Your task to perform on an android device: move an email to a new category in the gmail app Image 0: 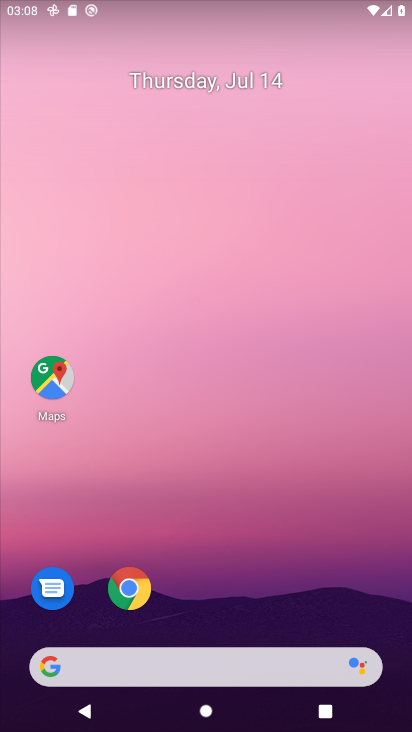
Step 0: drag from (269, 584) to (155, 118)
Your task to perform on an android device: move an email to a new category in the gmail app Image 1: 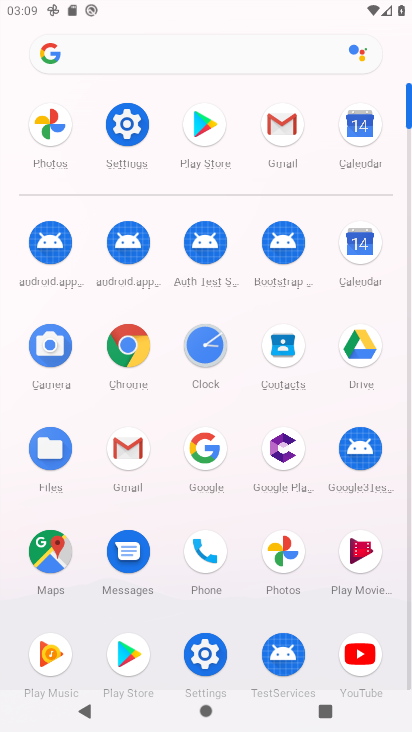
Step 1: click (281, 129)
Your task to perform on an android device: move an email to a new category in the gmail app Image 2: 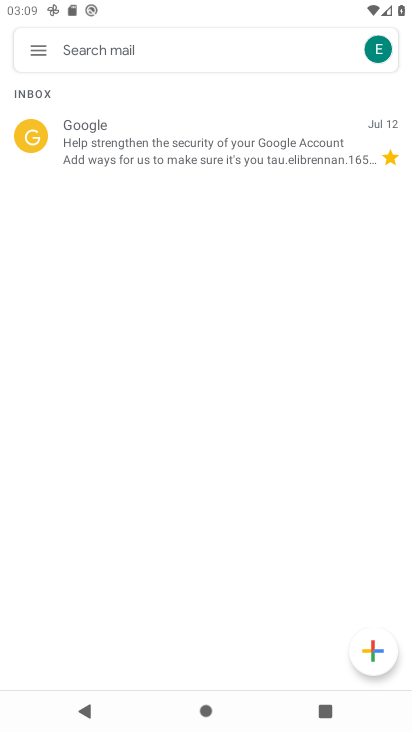
Step 2: click (170, 139)
Your task to perform on an android device: move an email to a new category in the gmail app Image 3: 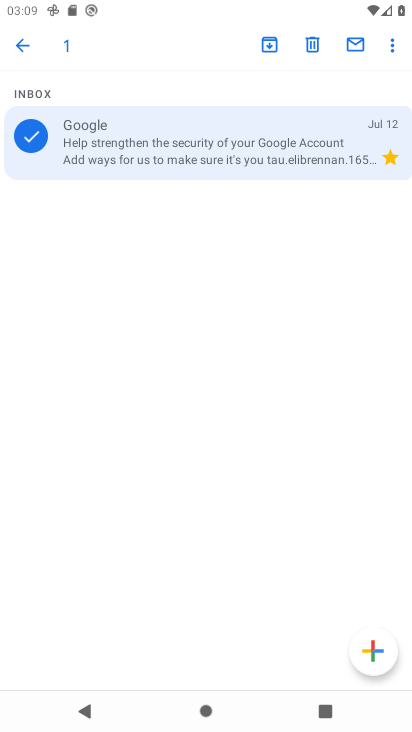
Step 3: click (400, 44)
Your task to perform on an android device: move an email to a new category in the gmail app Image 4: 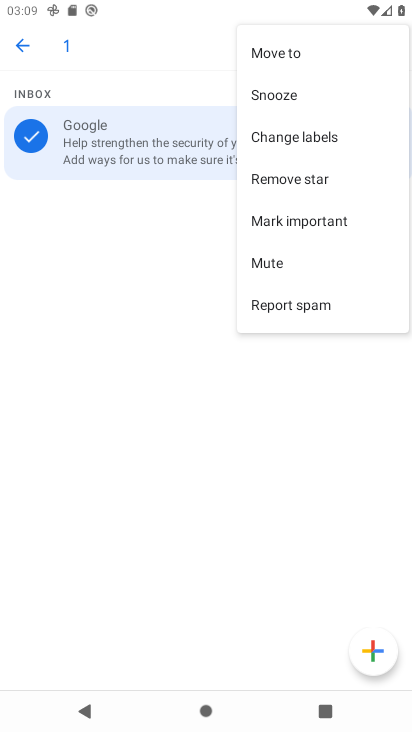
Step 4: click (301, 58)
Your task to perform on an android device: move an email to a new category in the gmail app Image 5: 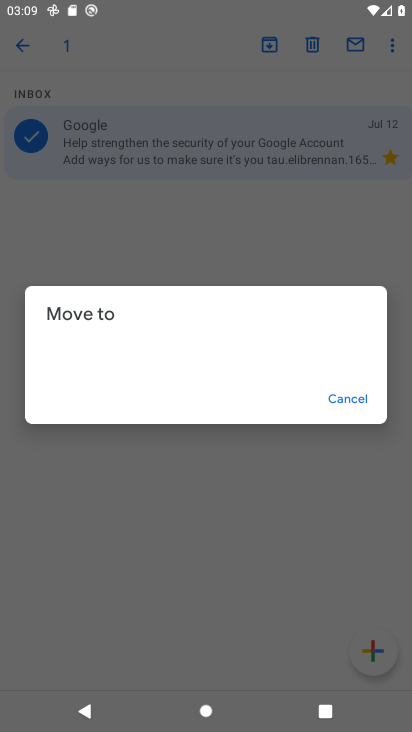
Step 5: task complete